Your task to perform on an android device: change the clock style Image 0: 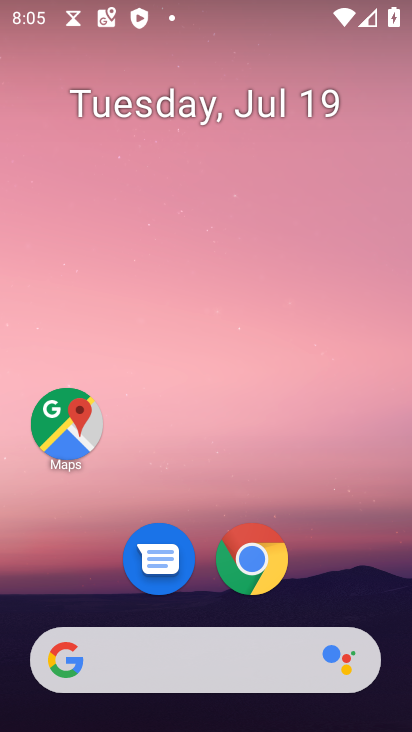
Step 0: drag from (93, 554) to (228, 2)
Your task to perform on an android device: change the clock style Image 1: 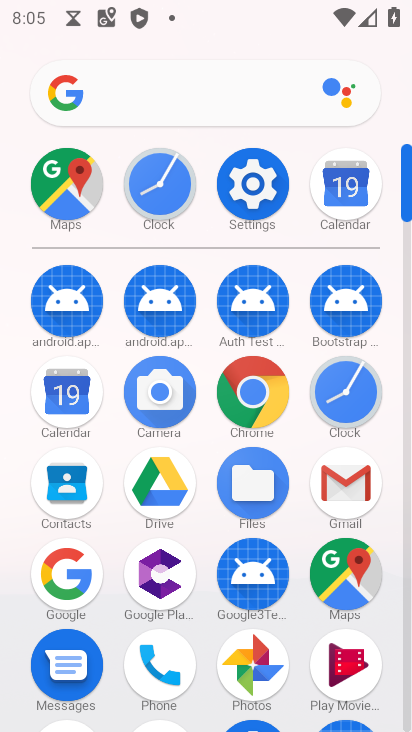
Step 1: click (171, 172)
Your task to perform on an android device: change the clock style Image 2: 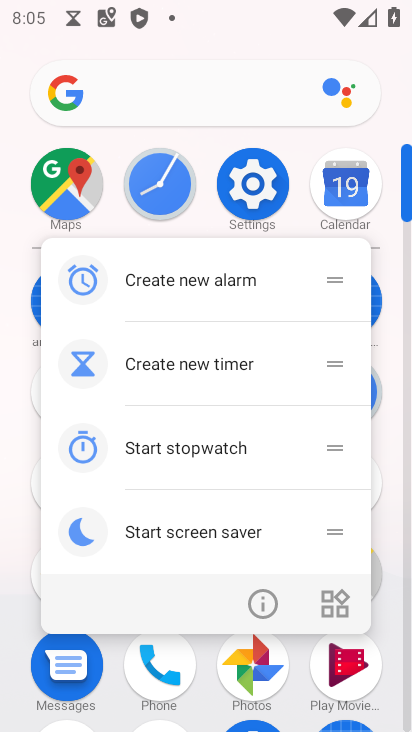
Step 2: click (171, 172)
Your task to perform on an android device: change the clock style Image 3: 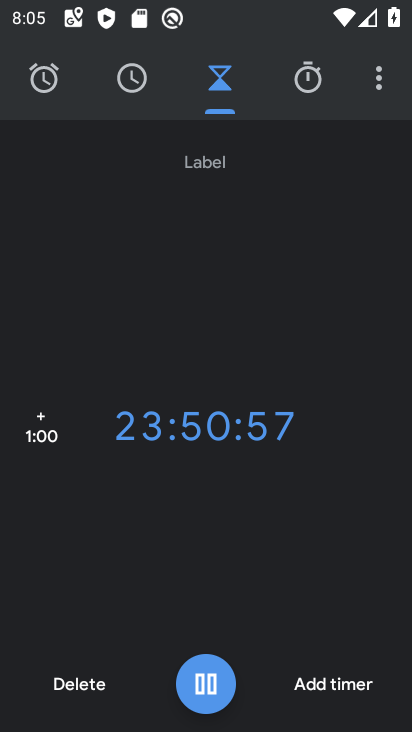
Step 3: click (366, 77)
Your task to perform on an android device: change the clock style Image 4: 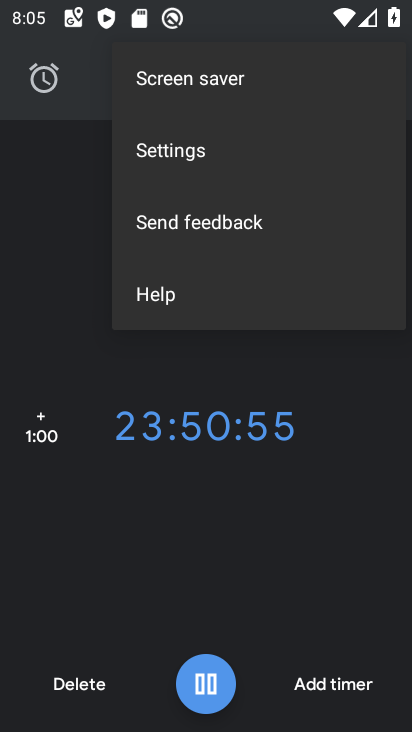
Step 4: click (210, 150)
Your task to perform on an android device: change the clock style Image 5: 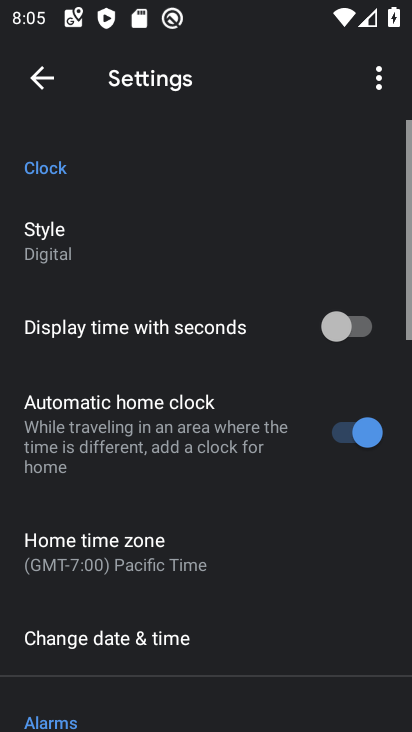
Step 5: click (110, 229)
Your task to perform on an android device: change the clock style Image 6: 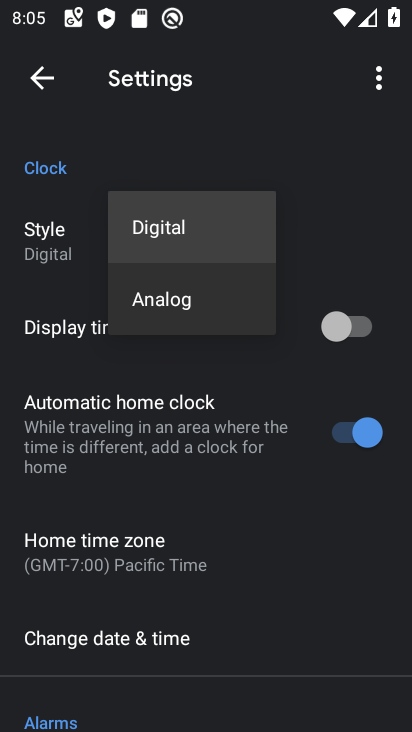
Step 6: click (145, 287)
Your task to perform on an android device: change the clock style Image 7: 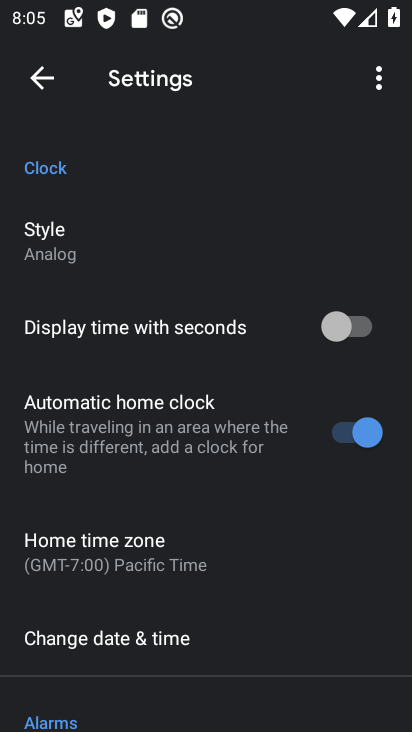
Step 7: task complete